Your task to perform on an android device: open sync settings in chrome Image 0: 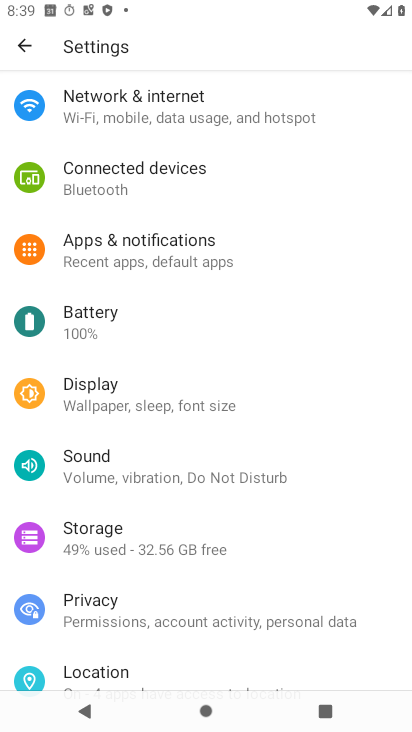
Step 0: press home button
Your task to perform on an android device: open sync settings in chrome Image 1: 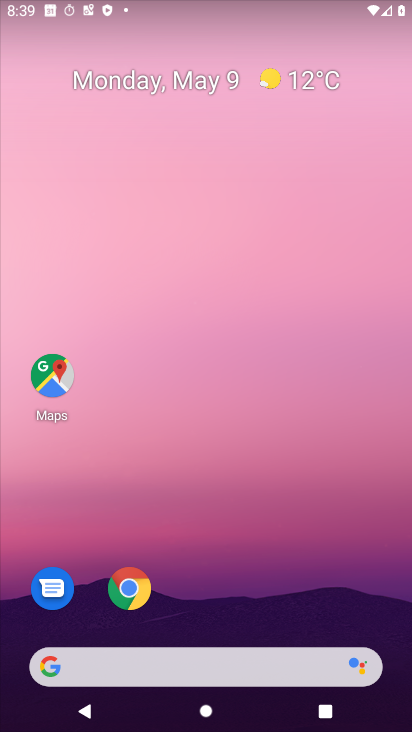
Step 1: drag from (159, 670) to (308, 170)
Your task to perform on an android device: open sync settings in chrome Image 2: 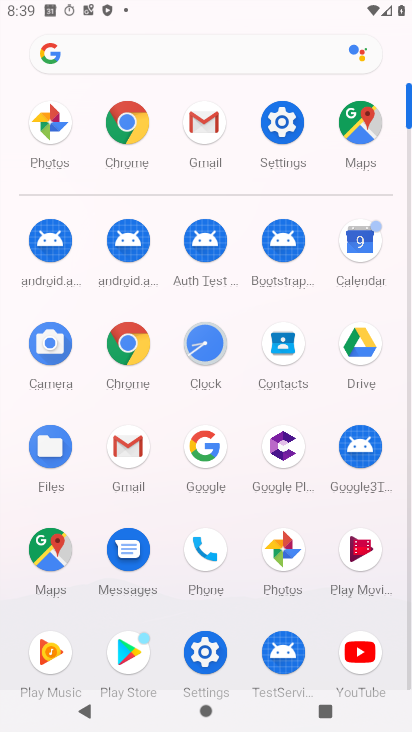
Step 2: click (128, 138)
Your task to perform on an android device: open sync settings in chrome Image 3: 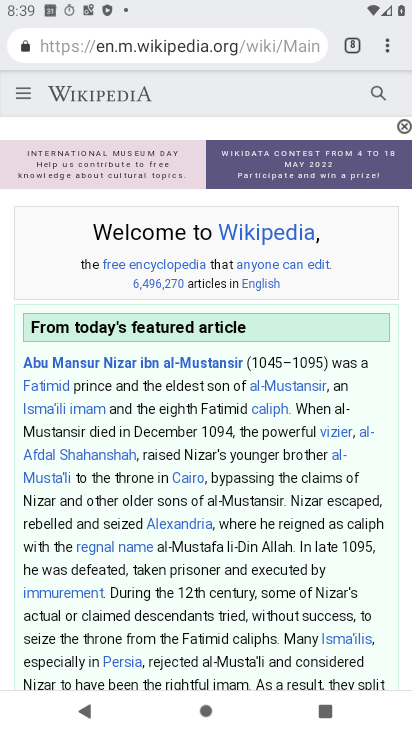
Step 3: drag from (382, 47) to (236, 555)
Your task to perform on an android device: open sync settings in chrome Image 4: 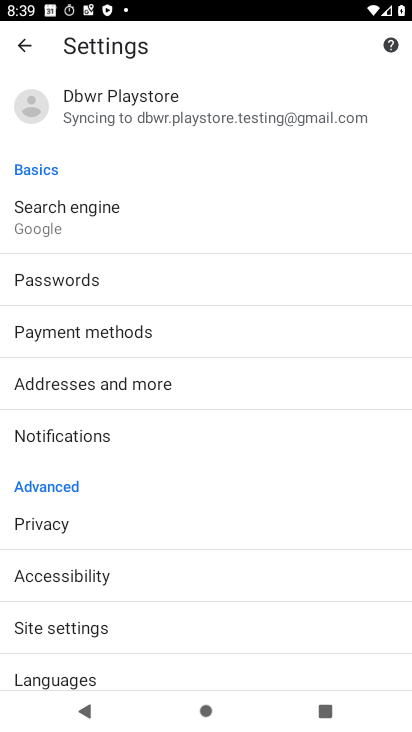
Step 4: click (160, 117)
Your task to perform on an android device: open sync settings in chrome Image 5: 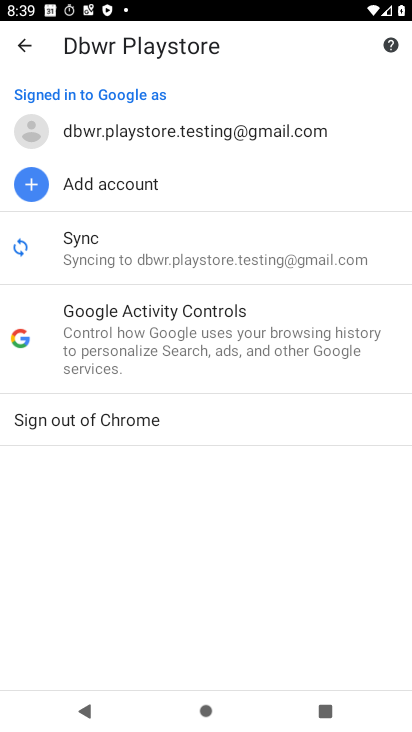
Step 5: click (80, 244)
Your task to perform on an android device: open sync settings in chrome Image 6: 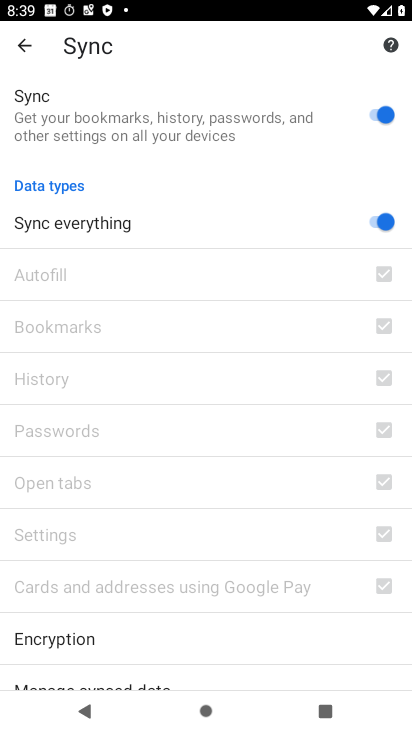
Step 6: task complete